Your task to perform on an android device: Go to Android settings Image 0: 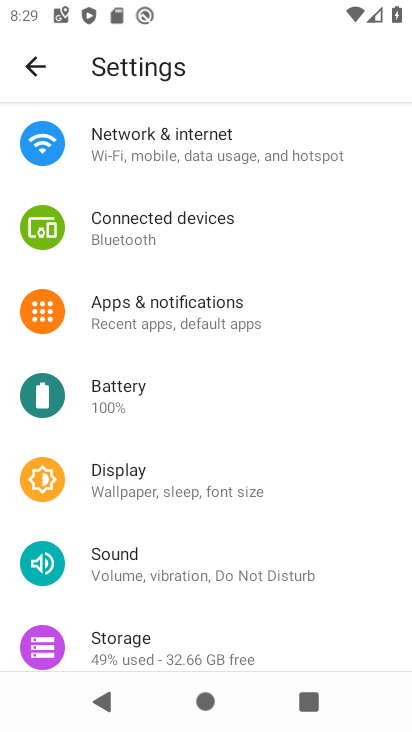
Step 0: drag from (218, 535) to (227, 146)
Your task to perform on an android device: Go to Android settings Image 1: 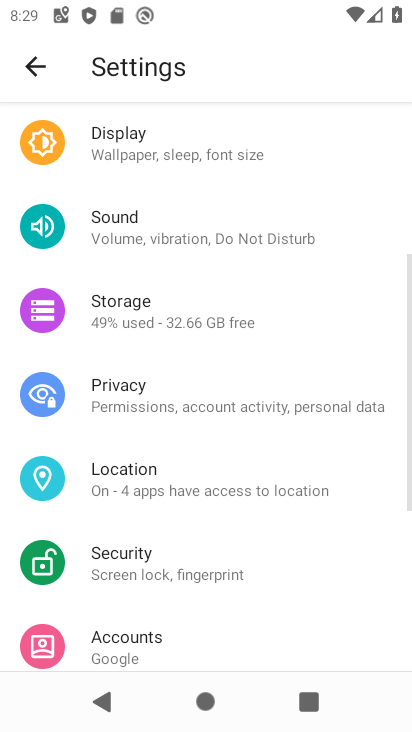
Step 1: drag from (177, 495) to (195, 90)
Your task to perform on an android device: Go to Android settings Image 2: 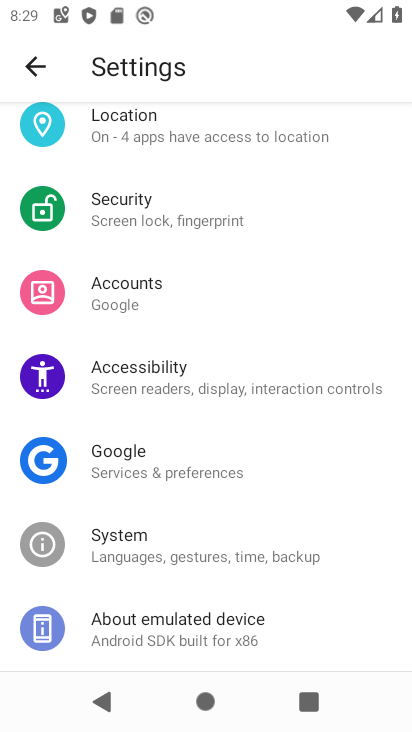
Step 2: click (166, 617)
Your task to perform on an android device: Go to Android settings Image 3: 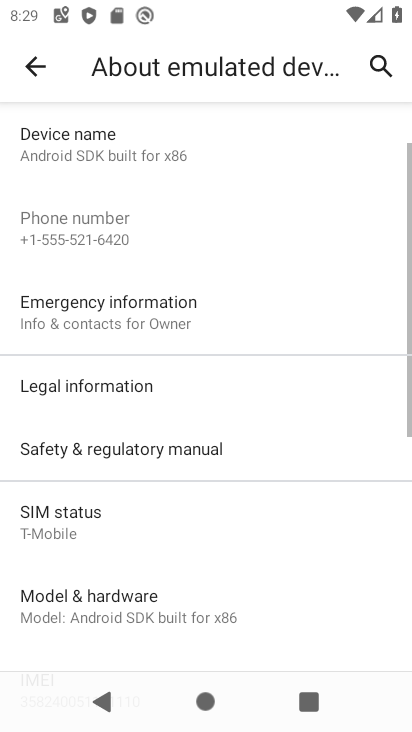
Step 3: task complete